Your task to perform on an android device: turn off priority inbox in the gmail app Image 0: 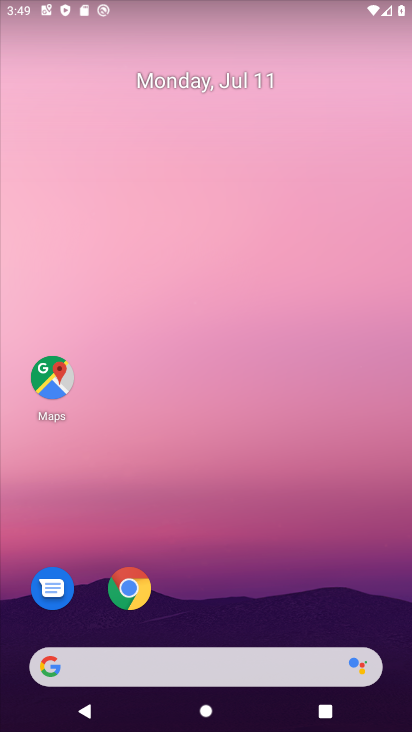
Step 0: press home button
Your task to perform on an android device: turn off priority inbox in the gmail app Image 1: 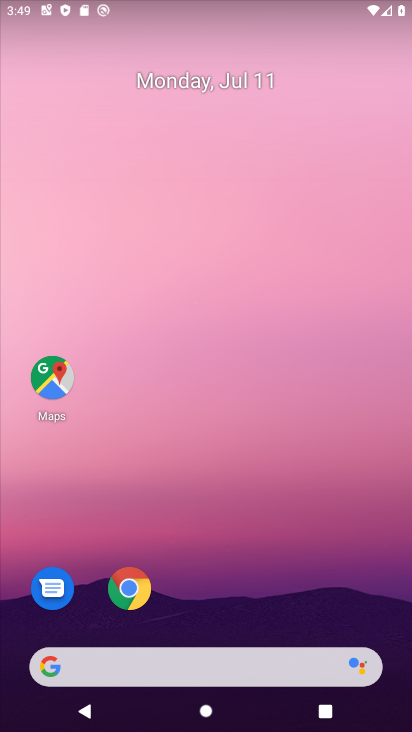
Step 1: drag from (302, 602) to (263, 79)
Your task to perform on an android device: turn off priority inbox in the gmail app Image 2: 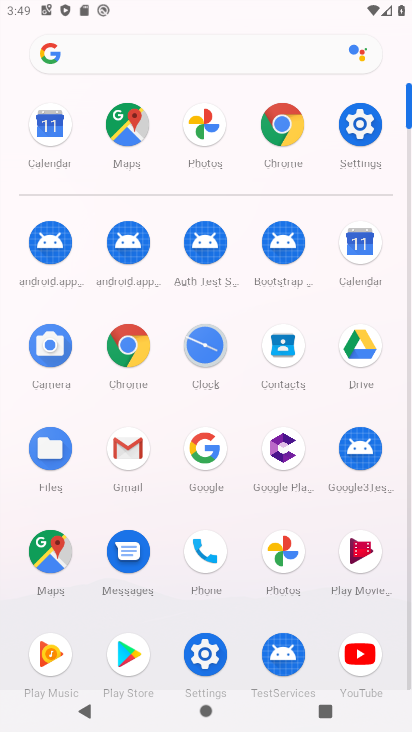
Step 2: click (128, 454)
Your task to perform on an android device: turn off priority inbox in the gmail app Image 3: 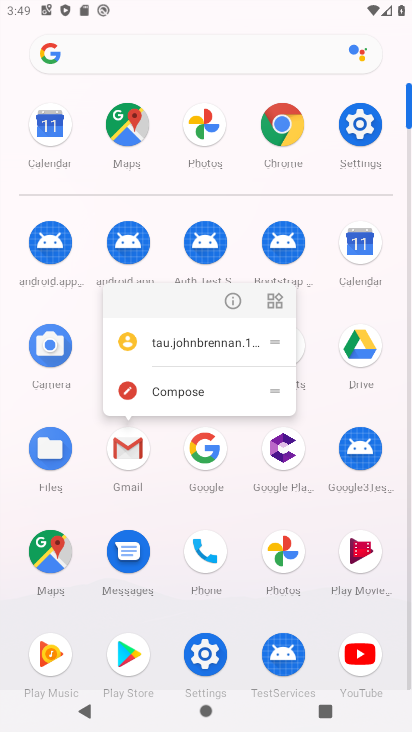
Step 3: click (132, 454)
Your task to perform on an android device: turn off priority inbox in the gmail app Image 4: 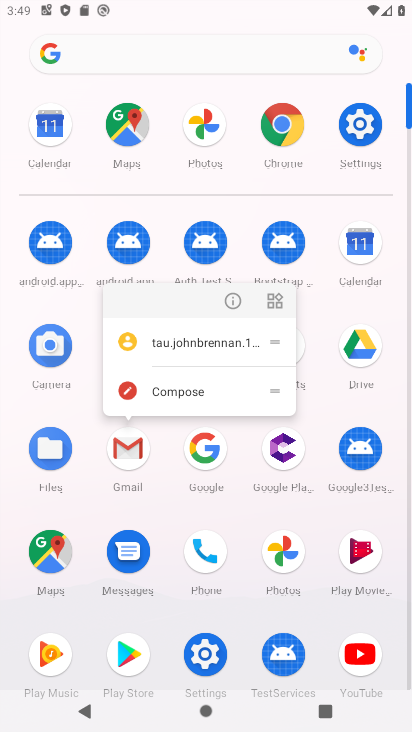
Step 4: click (144, 462)
Your task to perform on an android device: turn off priority inbox in the gmail app Image 5: 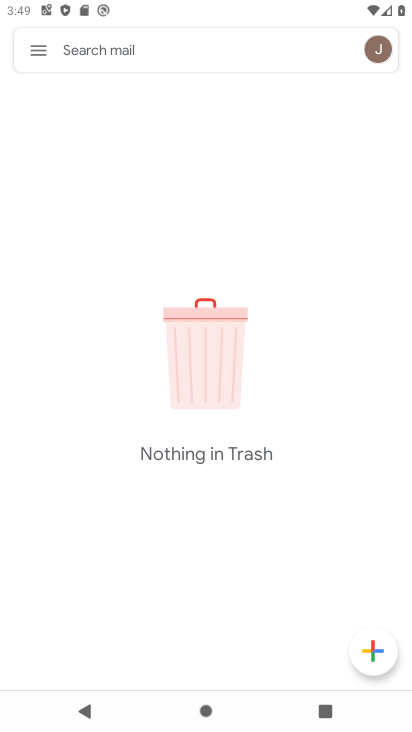
Step 5: click (42, 56)
Your task to perform on an android device: turn off priority inbox in the gmail app Image 6: 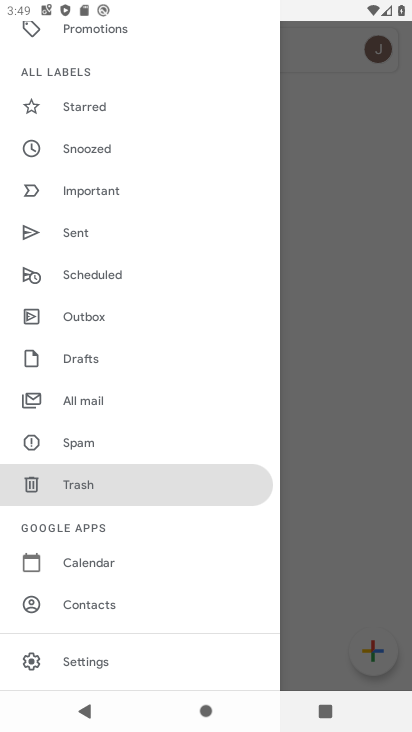
Step 6: click (89, 659)
Your task to perform on an android device: turn off priority inbox in the gmail app Image 7: 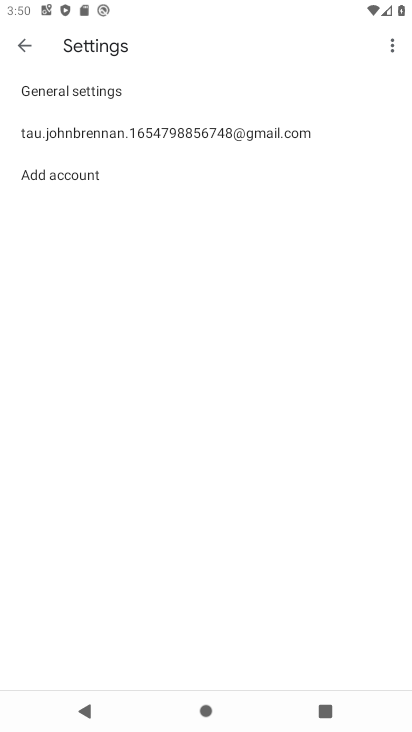
Step 7: click (67, 124)
Your task to perform on an android device: turn off priority inbox in the gmail app Image 8: 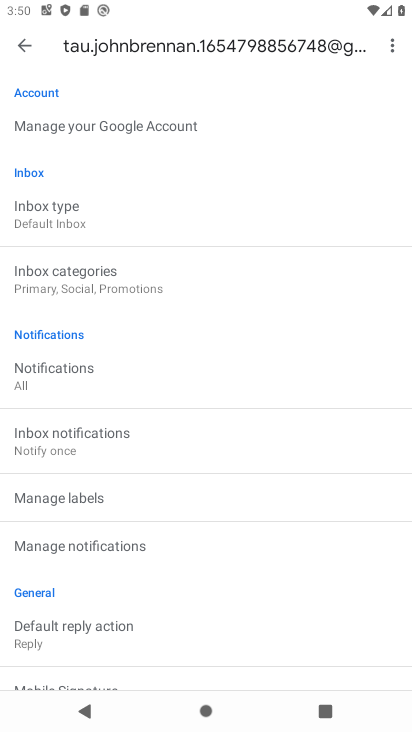
Step 8: click (26, 219)
Your task to perform on an android device: turn off priority inbox in the gmail app Image 9: 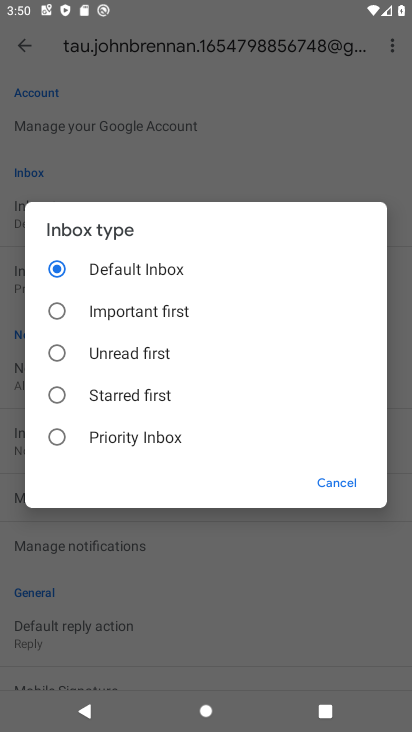
Step 9: click (172, 437)
Your task to perform on an android device: turn off priority inbox in the gmail app Image 10: 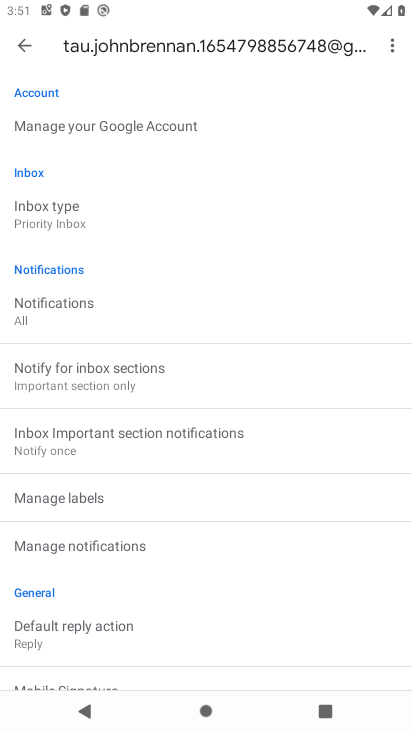
Step 10: task complete